Your task to perform on an android device: allow cookies in the chrome app Image 0: 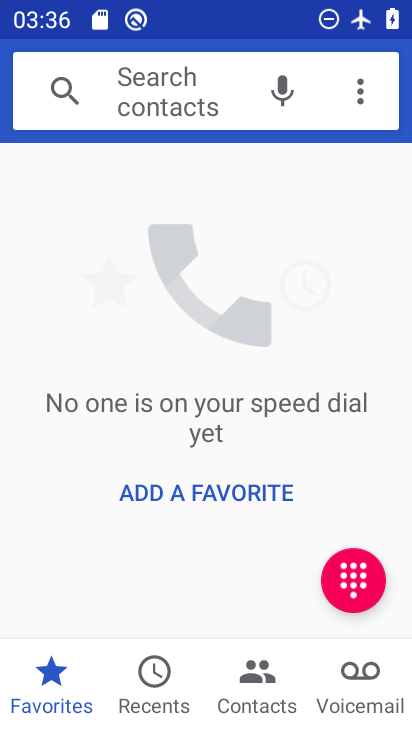
Step 0: press home button
Your task to perform on an android device: allow cookies in the chrome app Image 1: 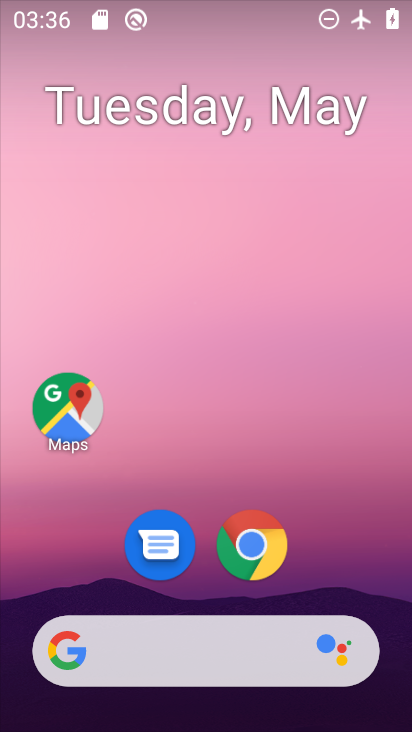
Step 1: click (254, 540)
Your task to perform on an android device: allow cookies in the chrome app Image 2: 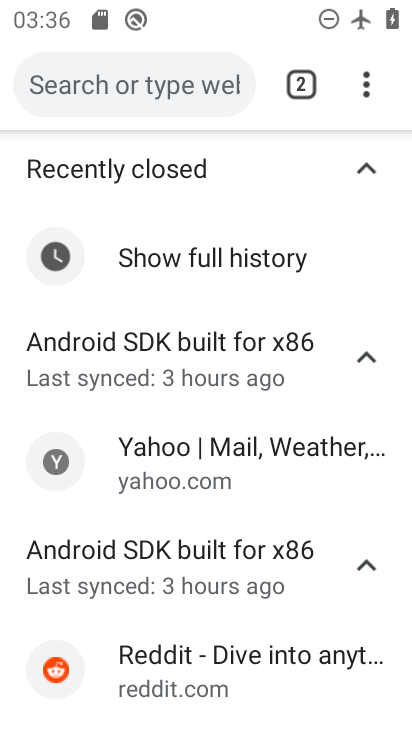
Step 2: click (369, 90)
Your task to perform on an android device: allow cookies in the chrome app Image 3: 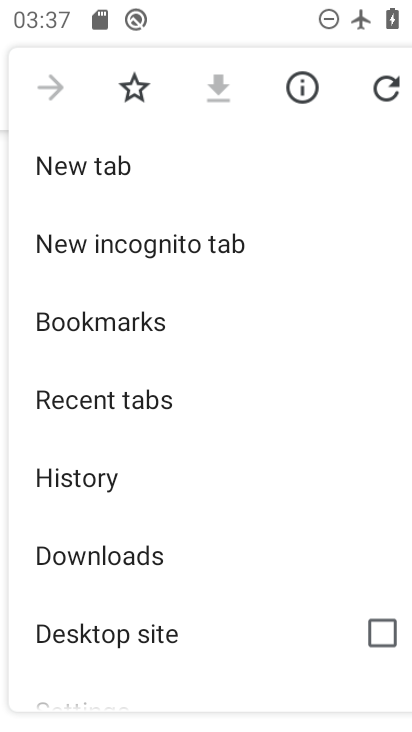
Step 3: drag from (191, 592) to (182, 267)
Your task to perform on an android device: allow cookies in the chrome app Image 4: 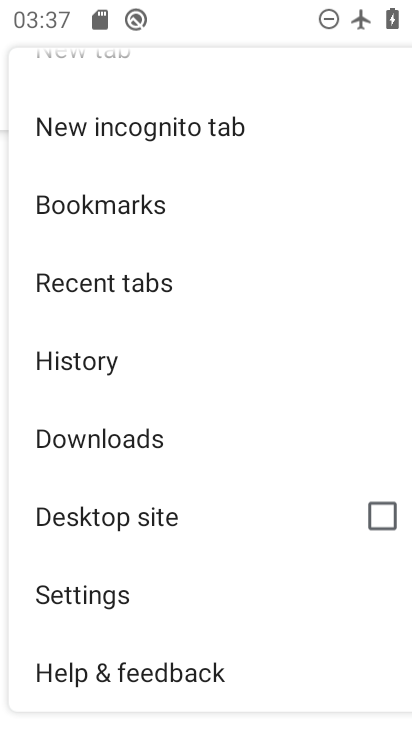
Step 4: click (105, 591)
Your task to perform on an android device: allow cookies in the chrome app Image 5: 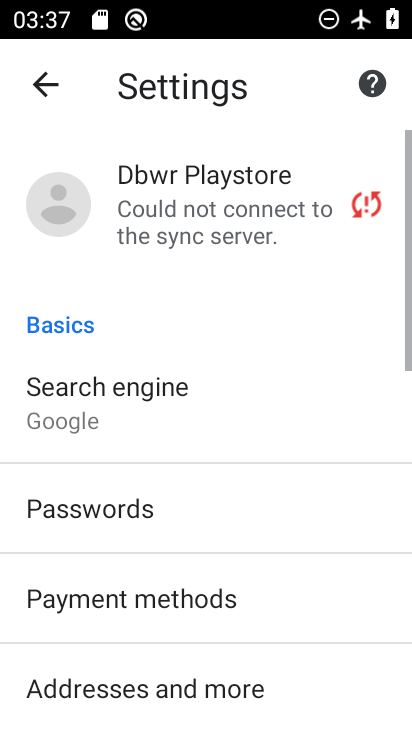
Step 5: drag from (267, 622) to (195, 249)
Your task to perform on an android device: allow cookies in the chrome app Image 6: 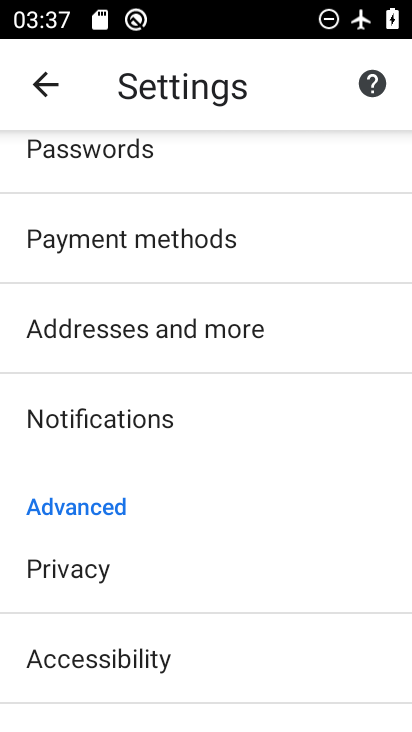
Step 6: drag from (242, 649) to (246, 264)
Your task to perform on an android device: allow cookies in the chrome app Image 7: 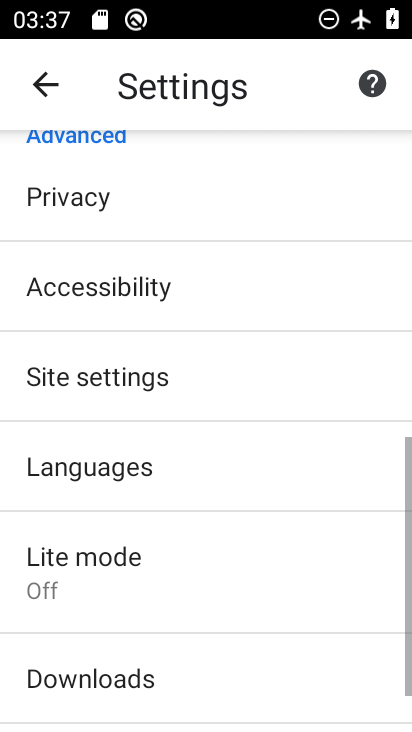
Step 7: click (96, 379)
Your task to perform on an android device: allow cookies in the chrome app Image 8: 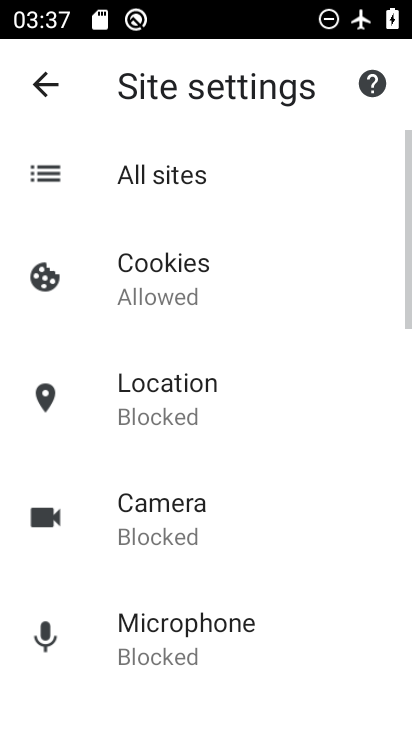
Step 8: click (162, 286)
Your task to perform on an android device: allow cookies in the chrome app Image 9: 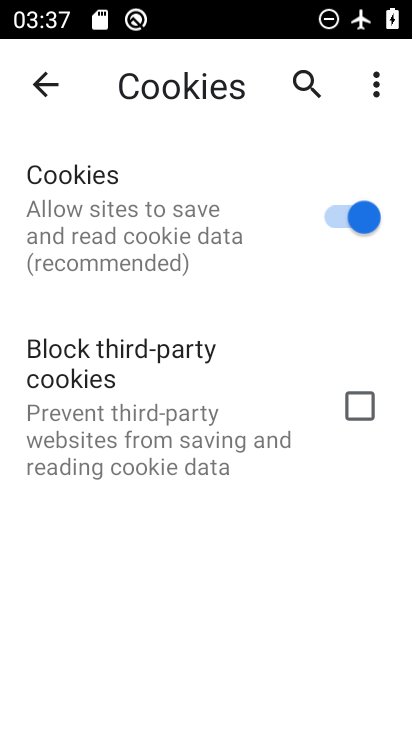
Step 9: task complete